Your task to perform on an android device: Go to CNN.com Image 0: 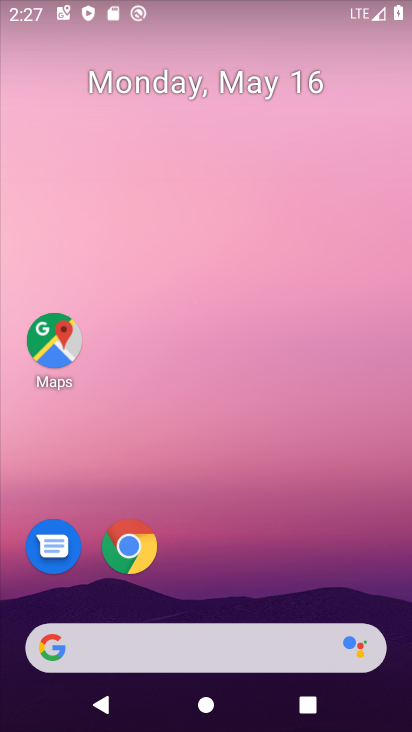
Step 0: drag from (270, 676) to (276, 226)
Your task to perform on an android device: Go to CNN.com Image 1: 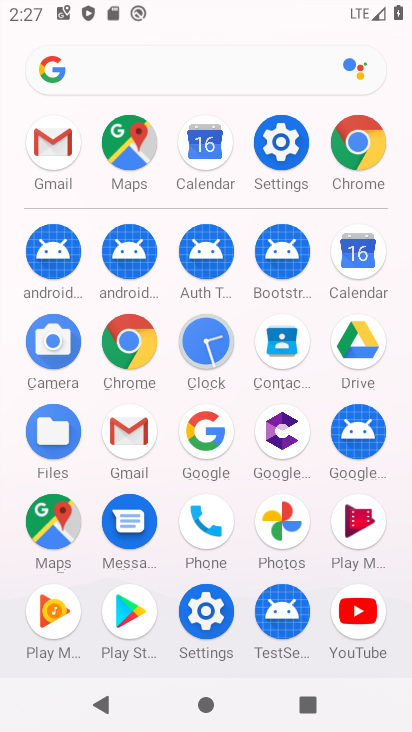
Step 1: click (113, 356)
Your task to perform on an android device: Go to CNN.com Image 2: 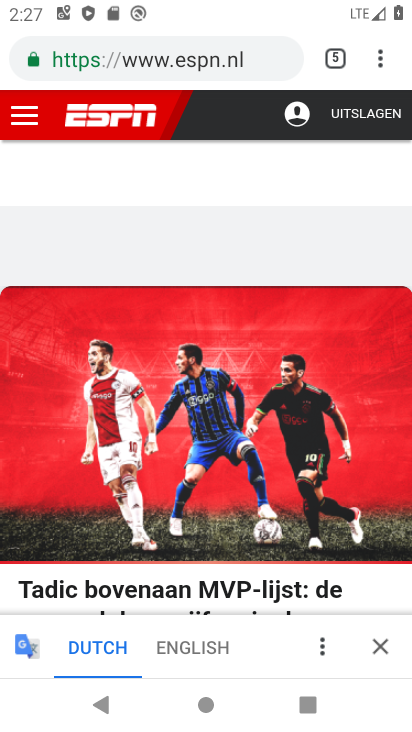
Step 2: click (221, 48)
Your task to perform on an android device: Go to CNN.com Image 3: 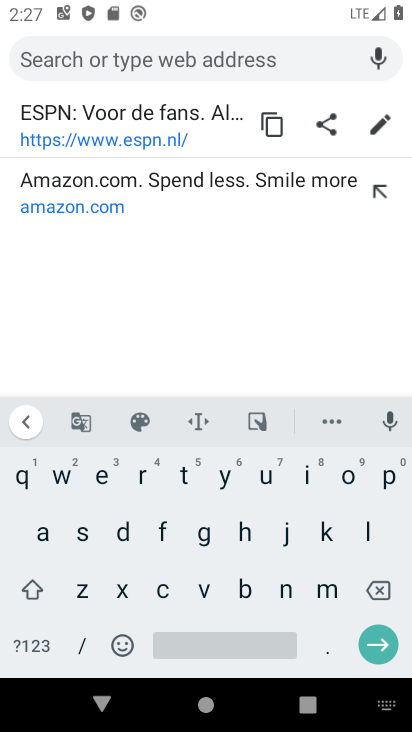
Step 3: click (158, 593)
Your task to perform on an android device: Go to CNN.com Image 4: 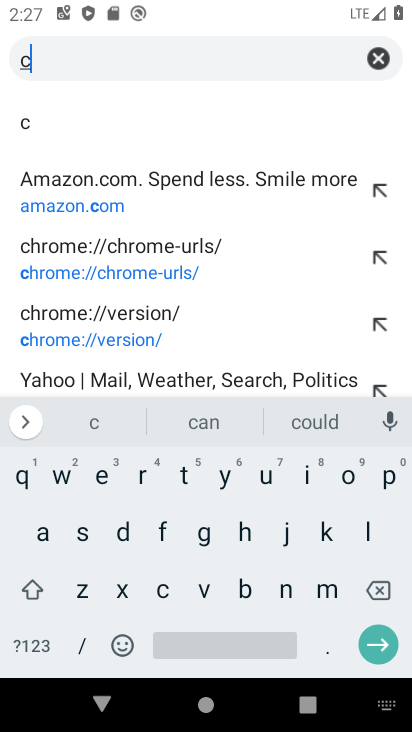
Step 4: click (283, 579)
Your task to perform on an android device: Go to CNN.com Image 5: 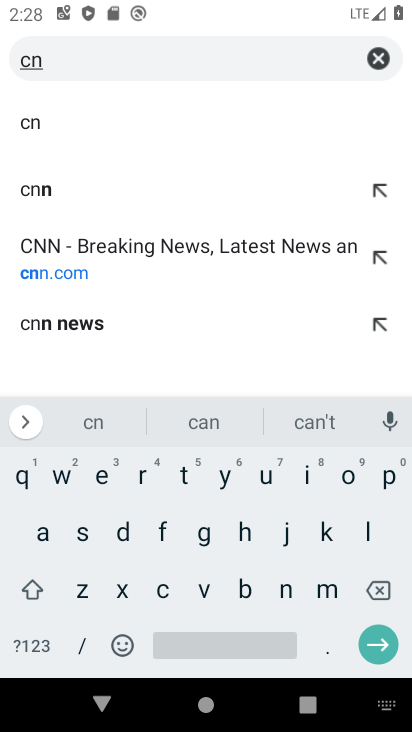
Step 5: click (111, 264)
Your task to perform on an android device: Go to CNN.com Image 6: 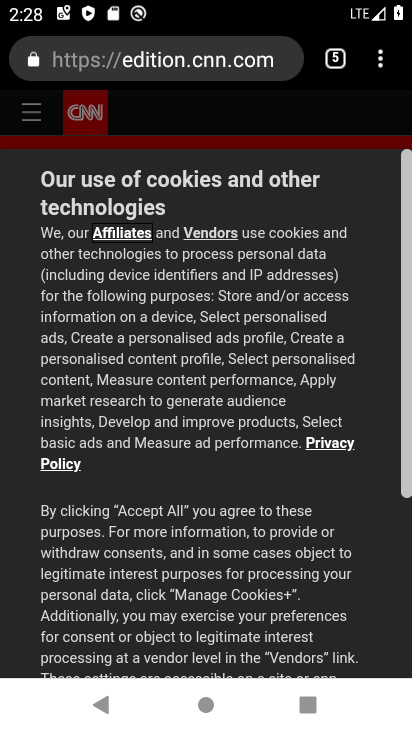
Step 6: drag from (214, 501) to (236, 229)
Your task to perform on an android device: Go to CNN.com Image 7: 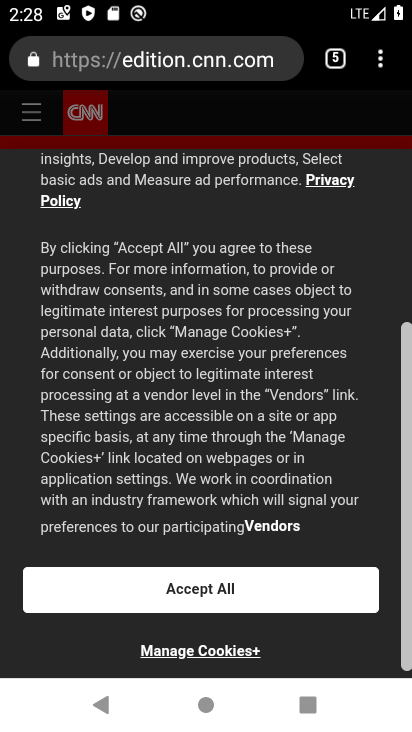
Step 7: click (204, 579)
Your task to perform on an android device: Go to CNN.com Image 8: 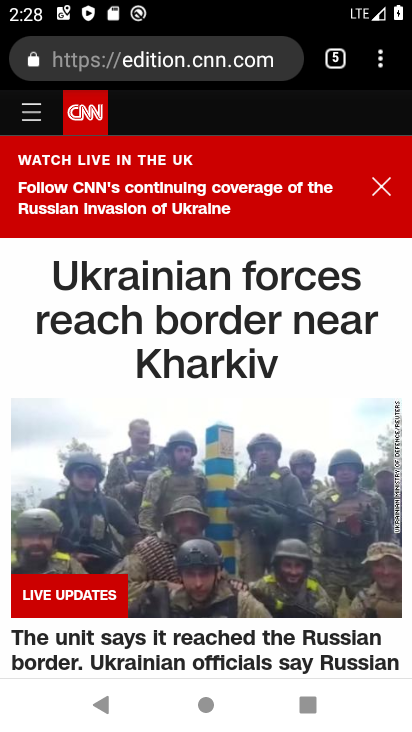
Step 8: task complete